Your task to perform on an android device: open app "DuckDuckGo Privacy Browser" Image 0: 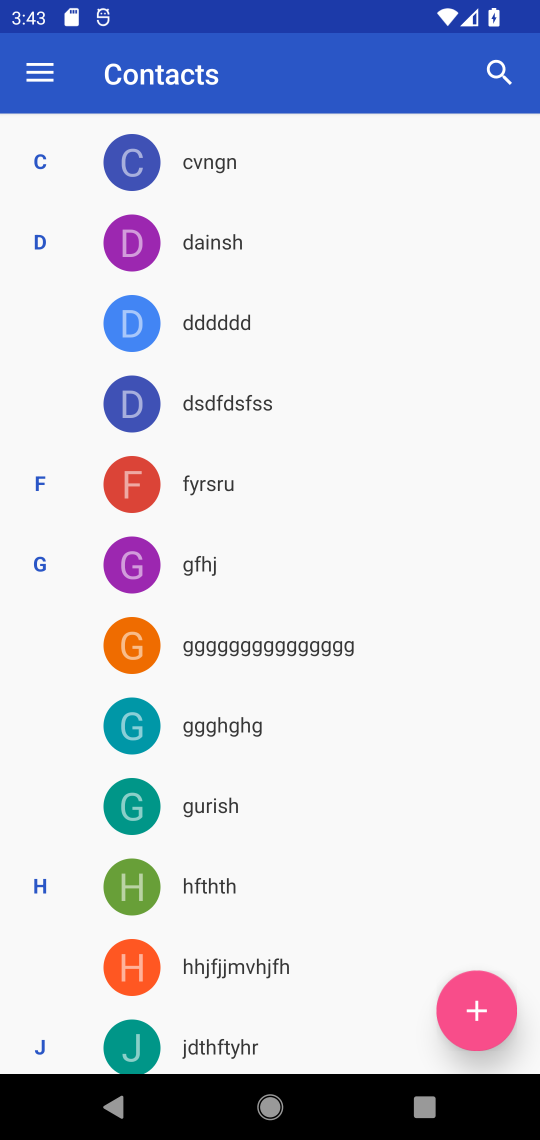
Step 0: press home button
Your task to perform on an android device: open app "DuckDuckGo Privacy Browser" Image 1: 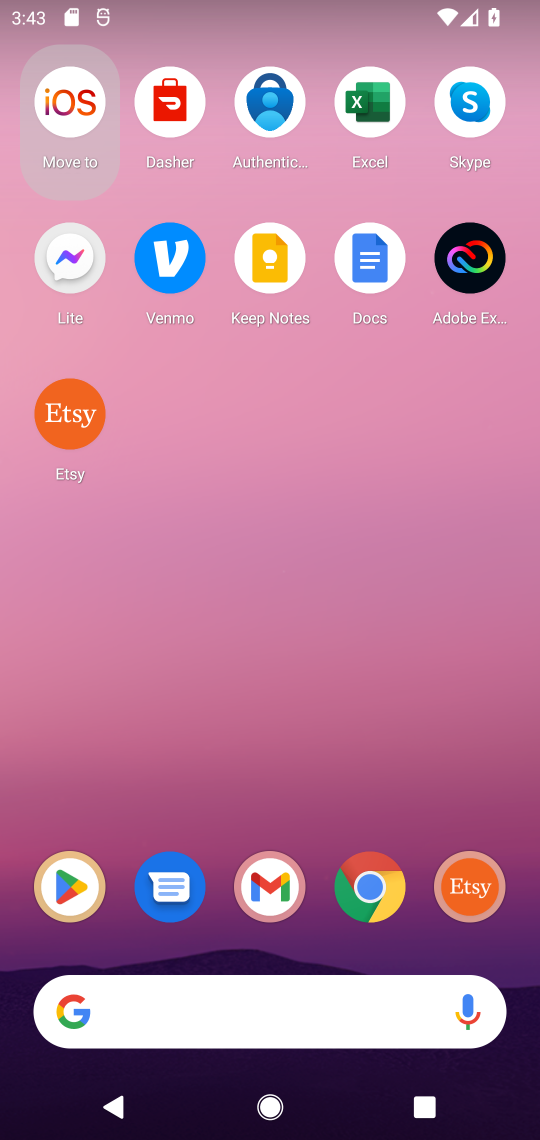
Step 1: click (53, 880)
Your task to perform on an android device: open app "DuckDuckGo Privacy Browser" Image 2: 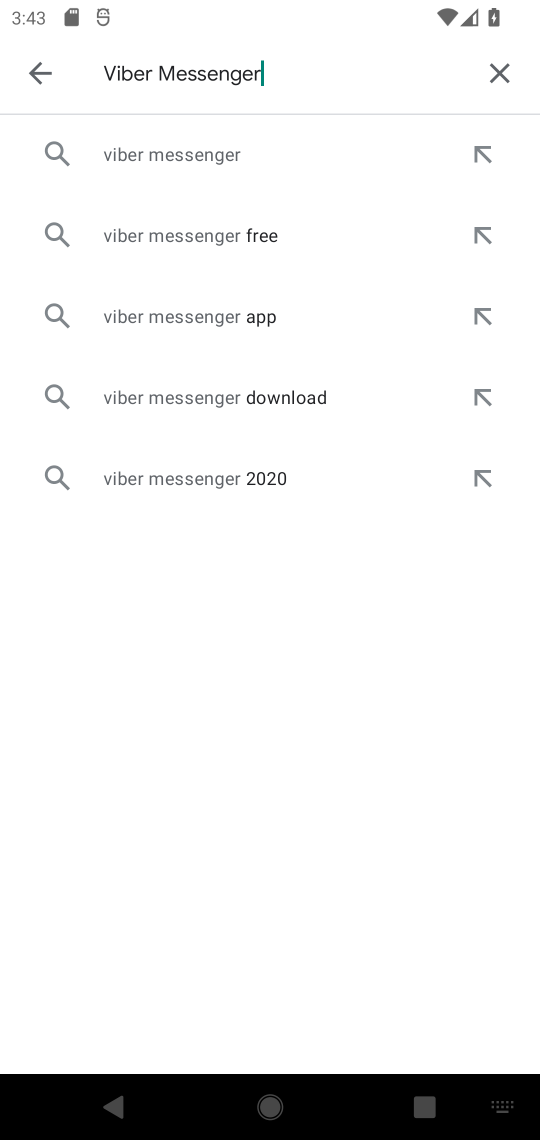
Step 2: click (45, 66)
Your task to perform on an android device: open app "DuckDuckGo Privacy Browser" Image 3: 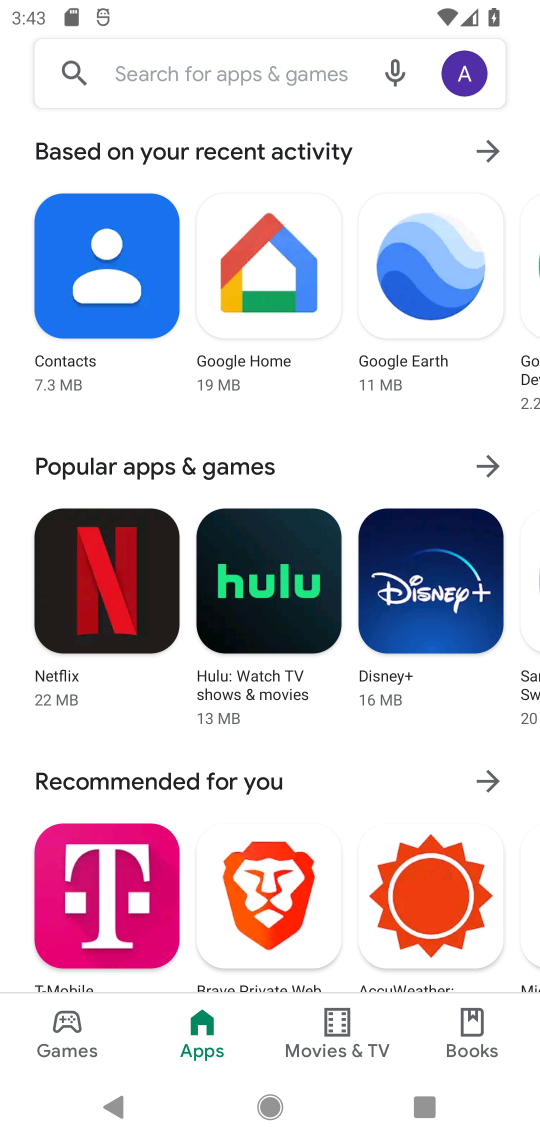
Step 3: click (130, 58)
Your task to perform on an android device: open app "DuckDuckGo Privacy Browser" Image 4: 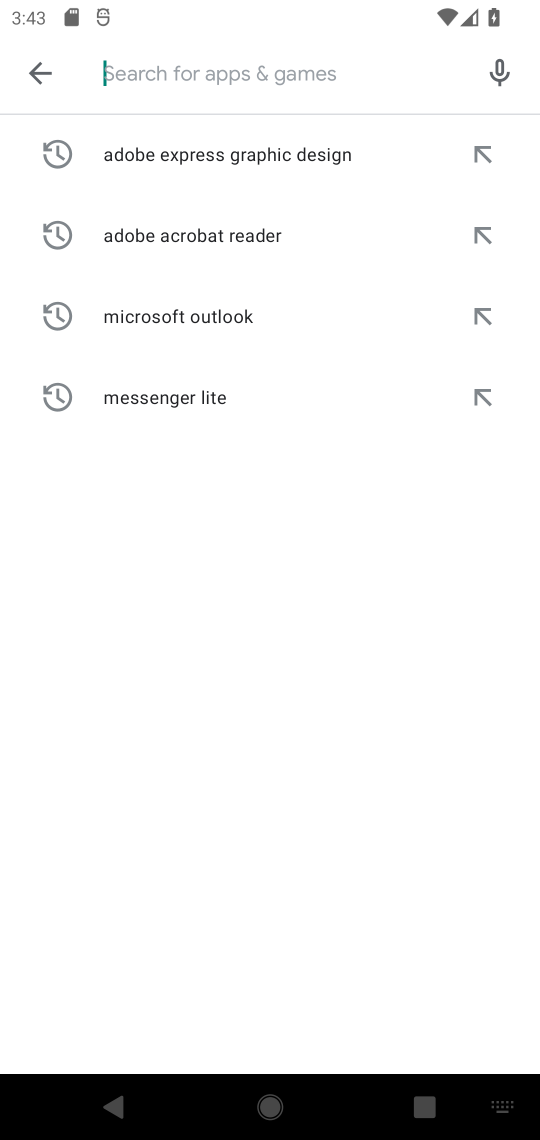
Step 4: type "DuckDuckGo Privacy Browser"
Your task to perform on an android device: open app "DuckDuckGo Privacy Browser" Image 5: 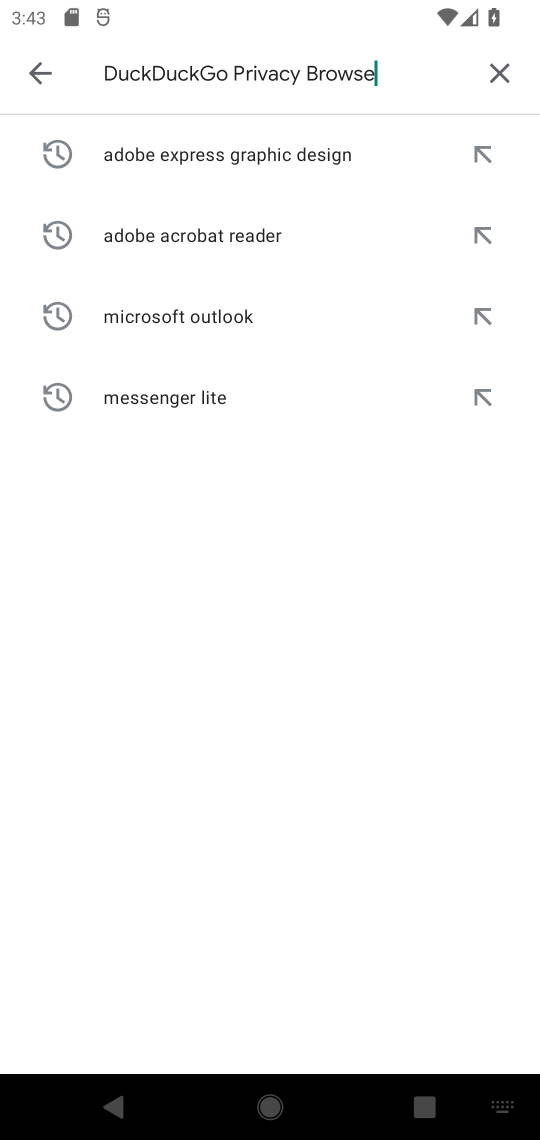
Step 5: type ""
Your task to perform on an android device: open app "DuckDuckGo Privacy Browser" Image 6: 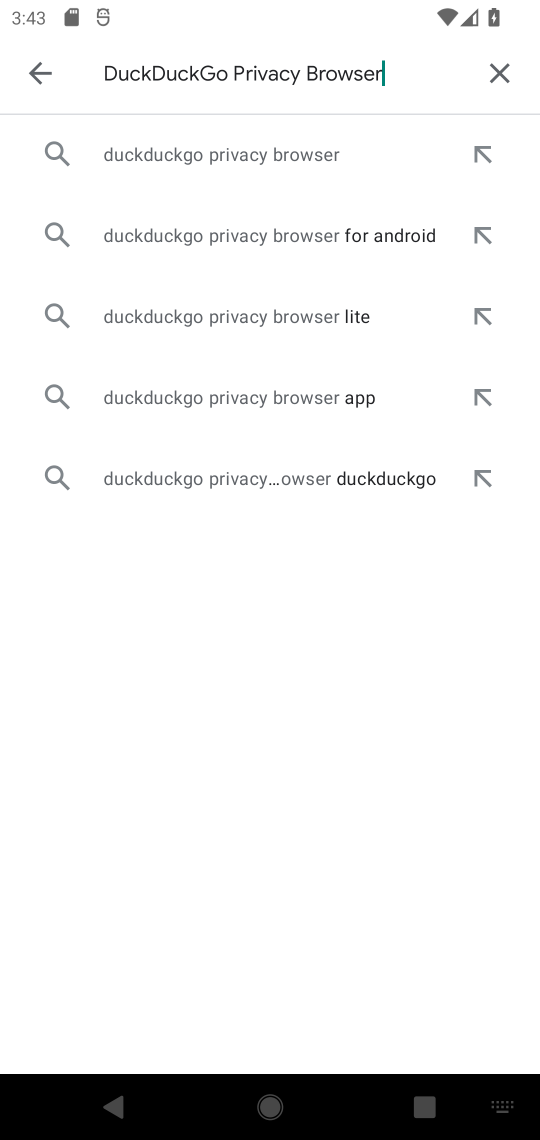
Step 6: click (307, 138)
Your task to perform on an android device: open app "DuckDuckGo Privacy Browser" Image 7: 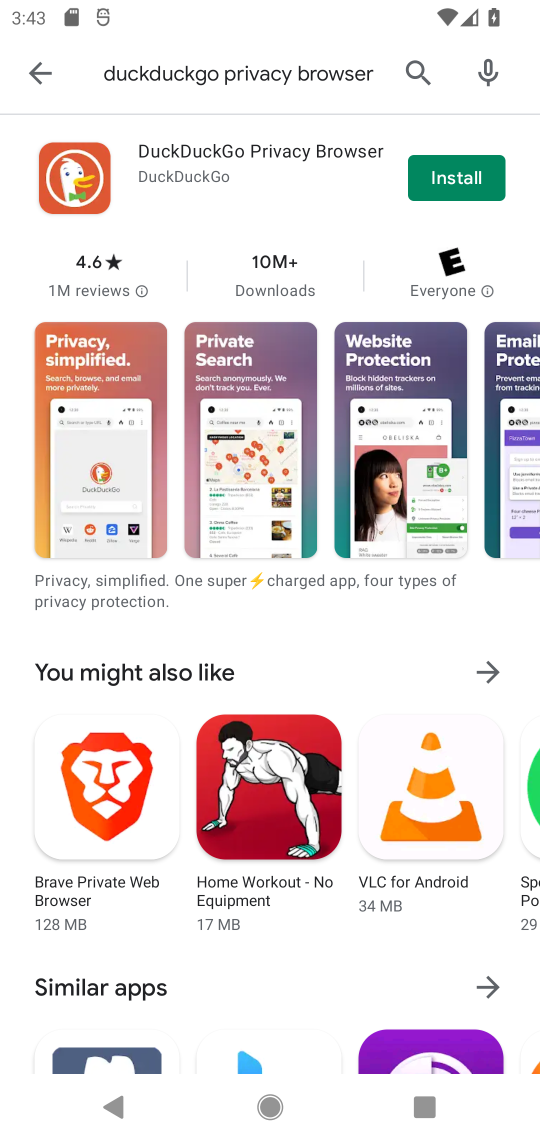
Step 7: click (442, 165)
Your task to perform on an android device: open app "DuckDuckGo Privacy Browser" Image 8: 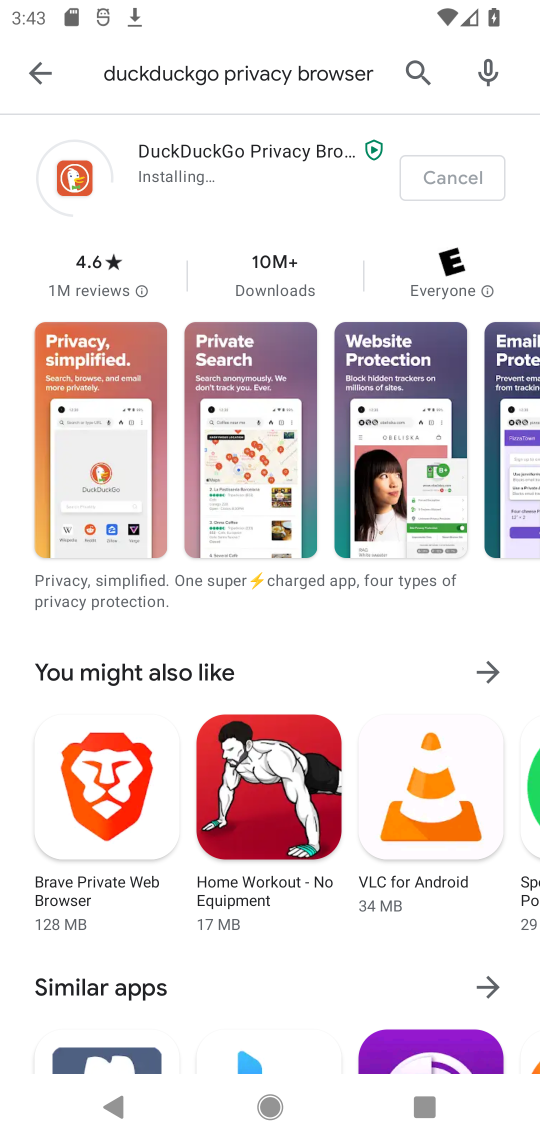
Step 8: click (435, 175)
Your task to perform on an android device: open app "DuckDuckGo Privacy Browser" Image 9: 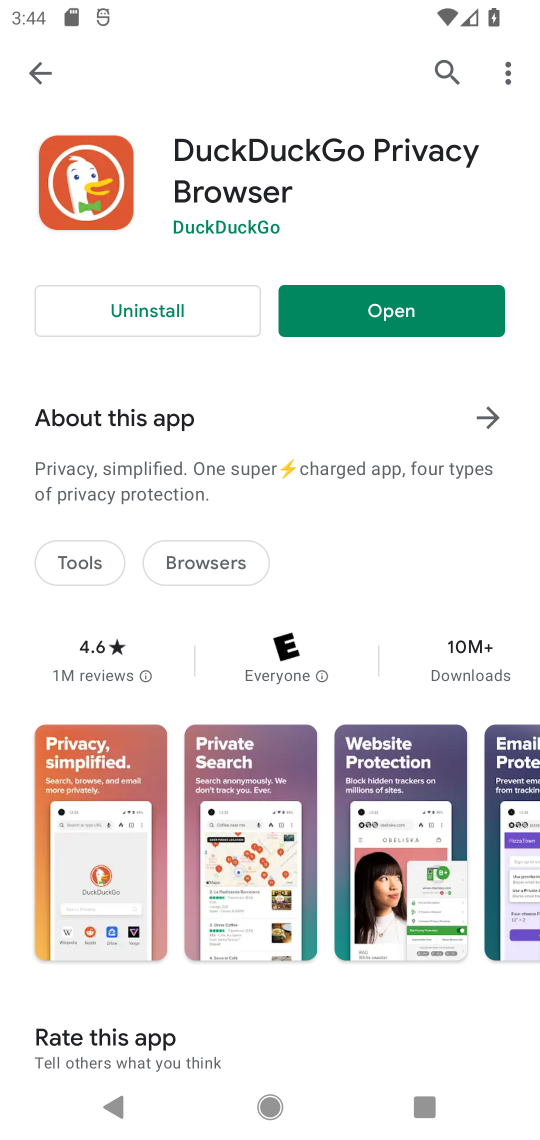
Step 9: task complete